Your task to perform on an android device: turn on airplane mode Image 0: 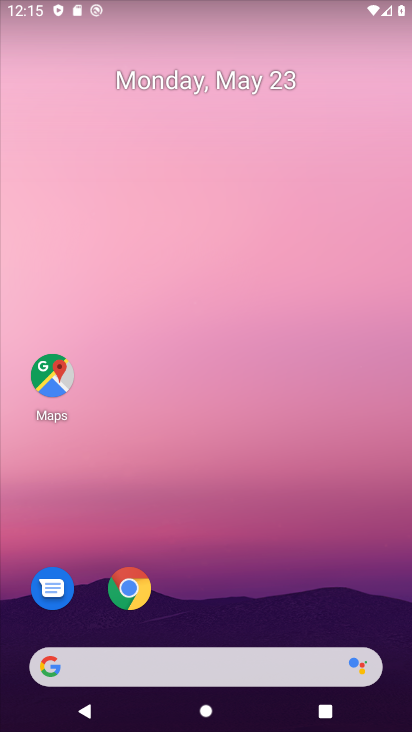
Step 0: drag from (231, 718) to (233, 118)
Your task to perform on an android device: turn on airplane mode Image 1: 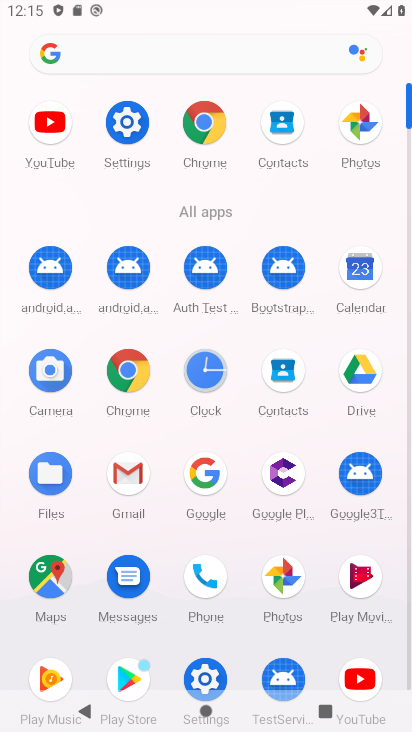
Step 1: click (129, 126)
Your task to perform on an android device: turn on airplane mode Image 2: 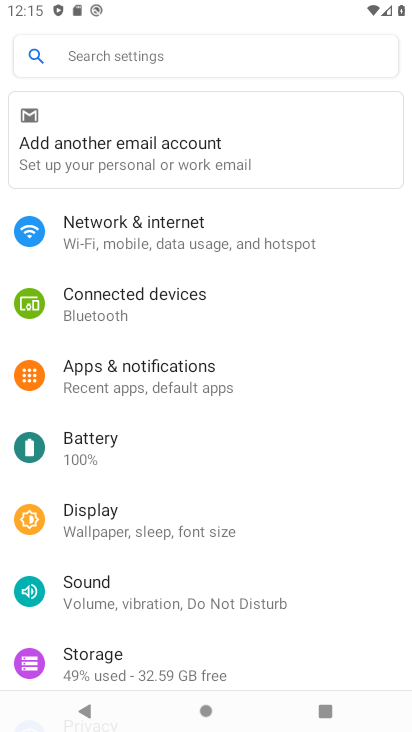
Step 2: click (103, 224)
Your task to perform on an android device: turn on airplane mode Image 3: 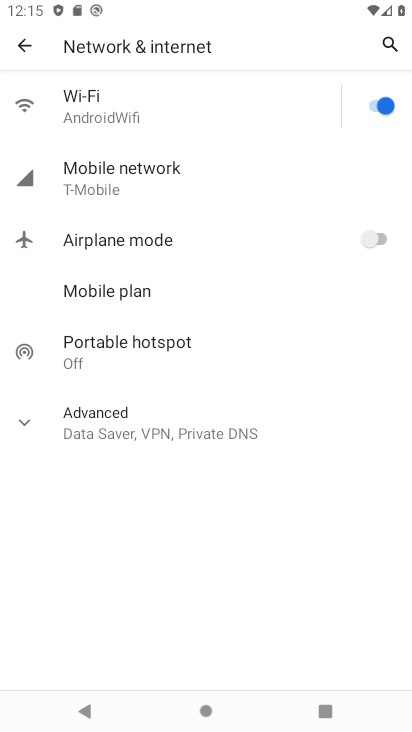
Step 3: click (374, 242)
Your task to perform on an android device: turn on airplane mode Image 4: 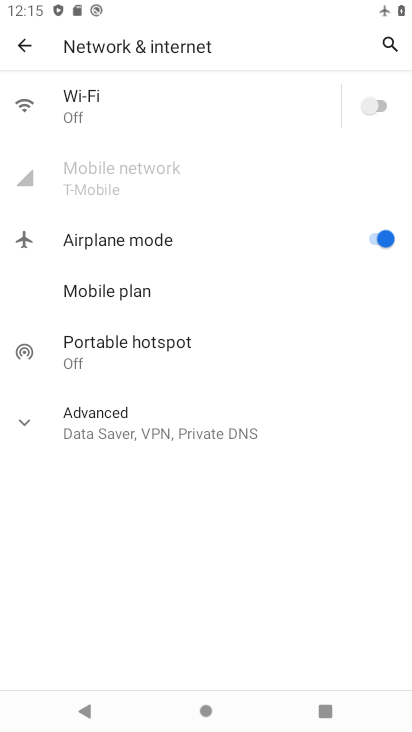
Step 4: task complete